Your task to perform on an android device: open sync settings in chrome Image 0: 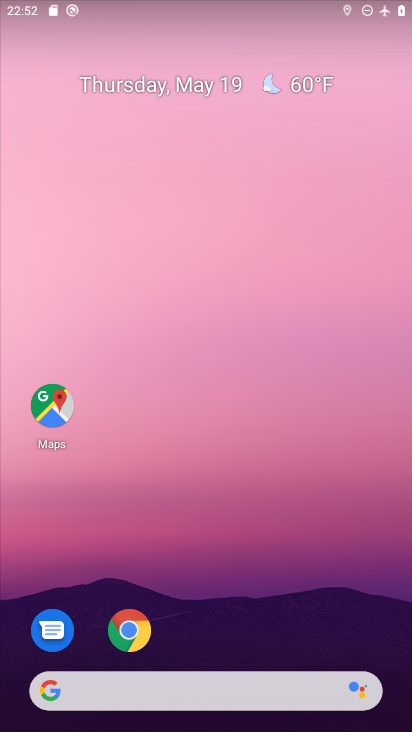
Step 0: click (122, 636)
Your task to perform on an android device: open sync settings in chrome Image 1: 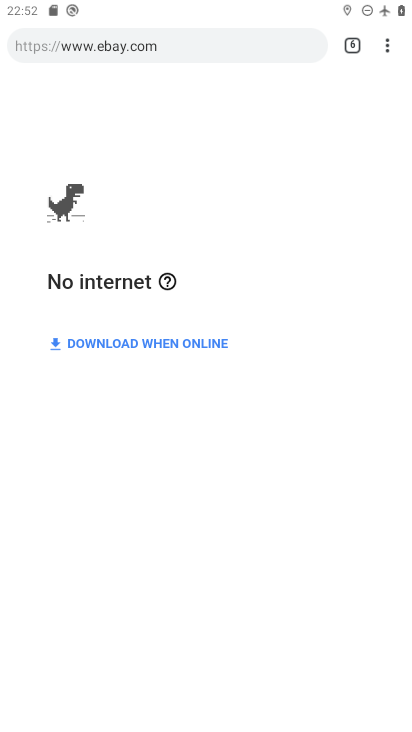
Step 1: click (386, 38)
Your task to perform on an android device: open sync settings in chrome Image 2: 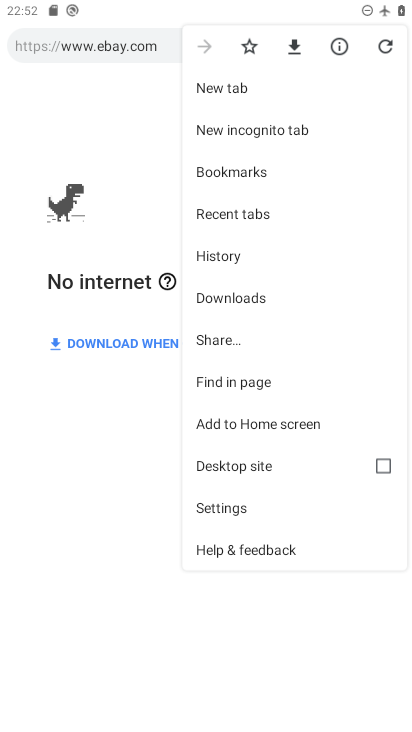
Step 2: click (229, 503)
Your task to perform on an android device: open sync settings in chrome Image 3: 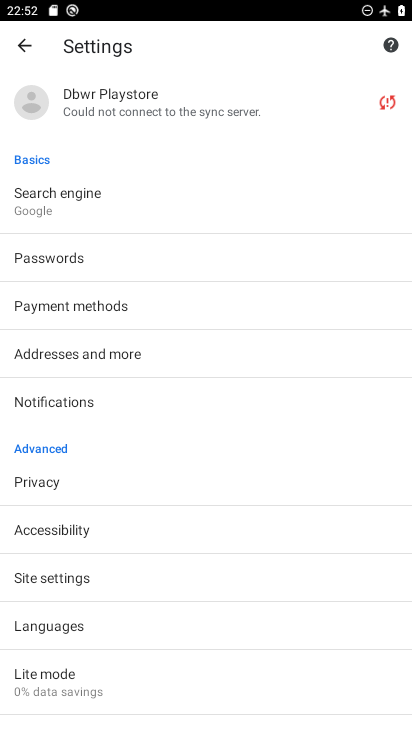
Step 3: click (104, 99)
Your task to perform on an android device: open sync settings in chrome Image 4: 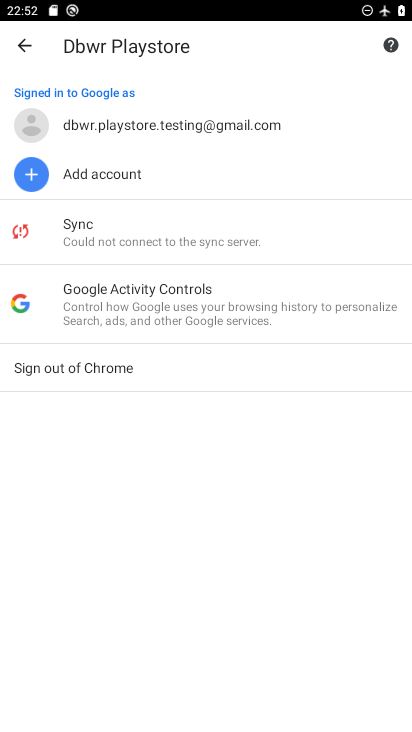
Step 4: click (111, 219)
Your task to perform on an android device: open sync settings in chrome Image 5: 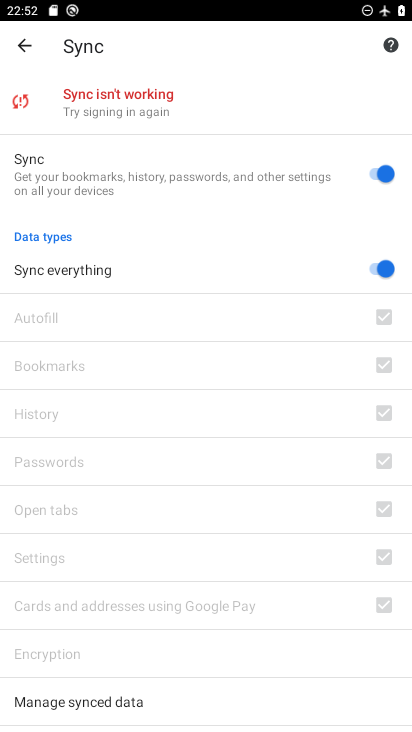
Step 5: task complete